Your task to perform on an android device: turn off location Image 0: 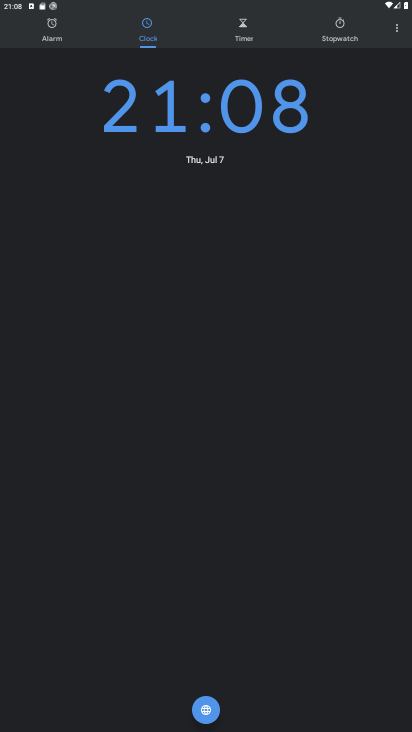
Step 0: press home button
Your task to perform on an android device: turn off location Image 1: 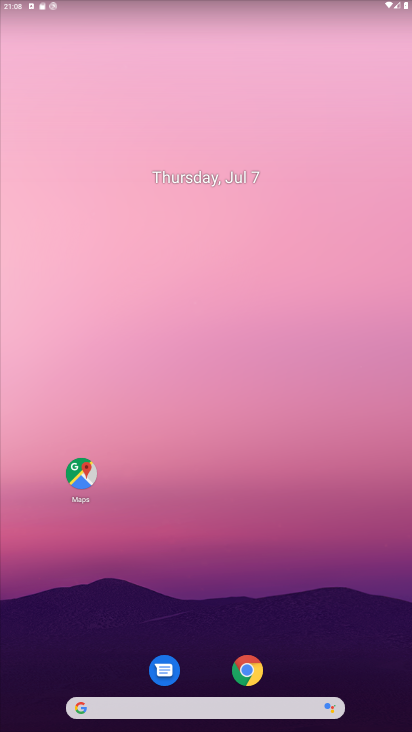
Step 1: drag from (19, 729) to (243, 74)
Your task to perform on an android device: turn off location Image 2: 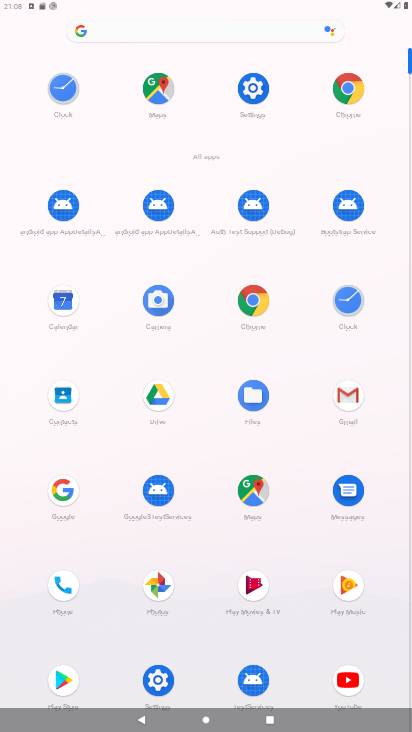
Step 2: click (267, 88)
Your task to perform on an android device: turn off location Image 3: 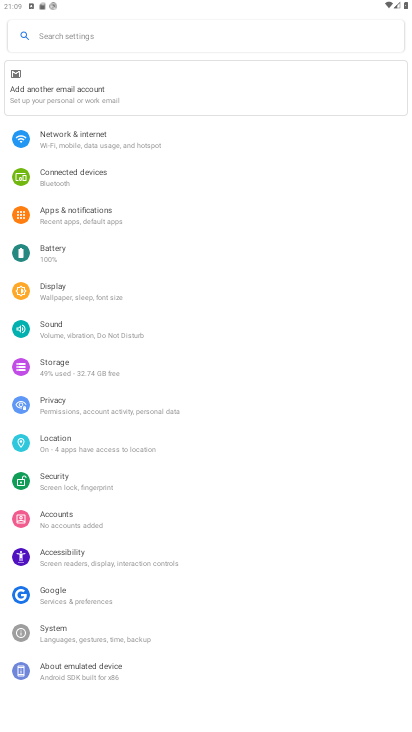
Step 3: click (46, 452)
Your task to perform on an android device: turn off location Image 4: 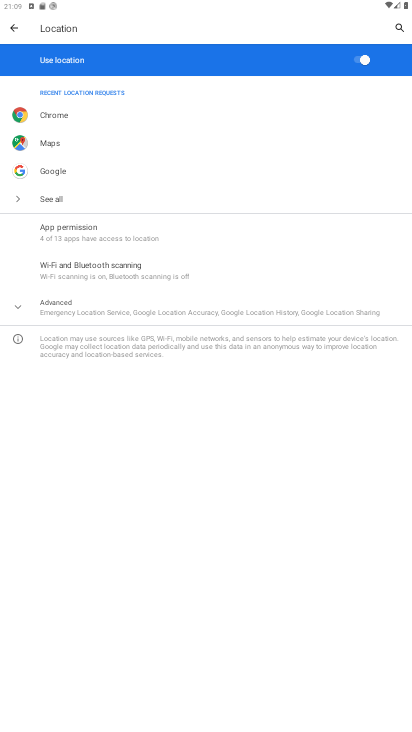
Step 4: click (364, 56)
Your task to perform on an android device: turn off location Image 5: 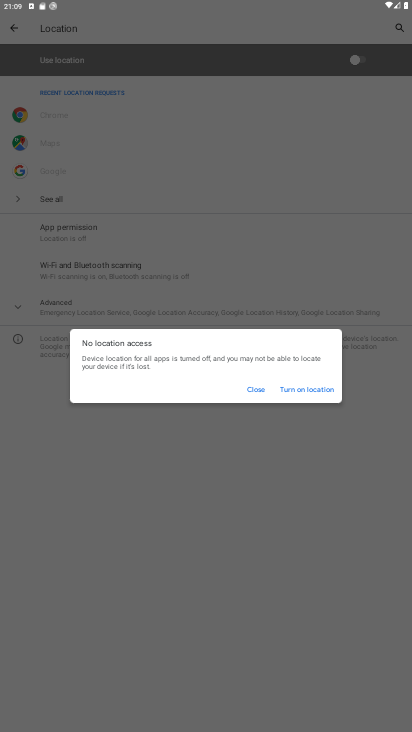
Step 5: task complete